Your task to perform on an android device: open sync settings in chrome Image 0: 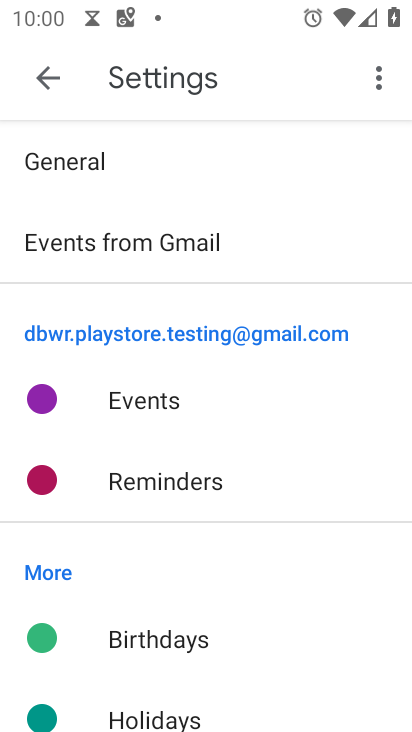
Step 0: click (38, 73)
Your task to perform on an android device: open sync settings in chrome Image 1: 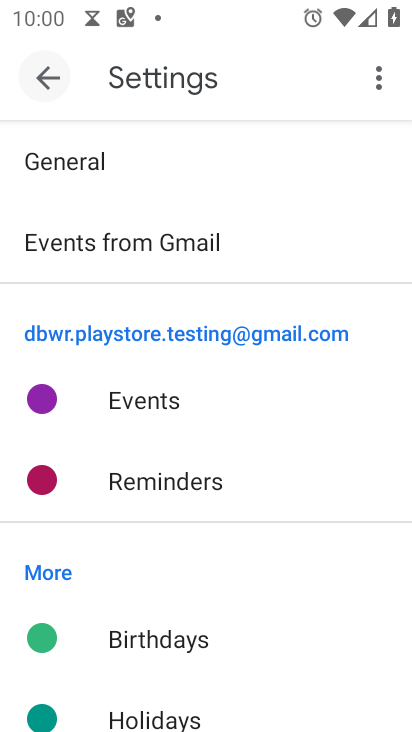
Step 1: click (39, 73)
Your task to perform on an android device: open sync settings in chrome Image 2: 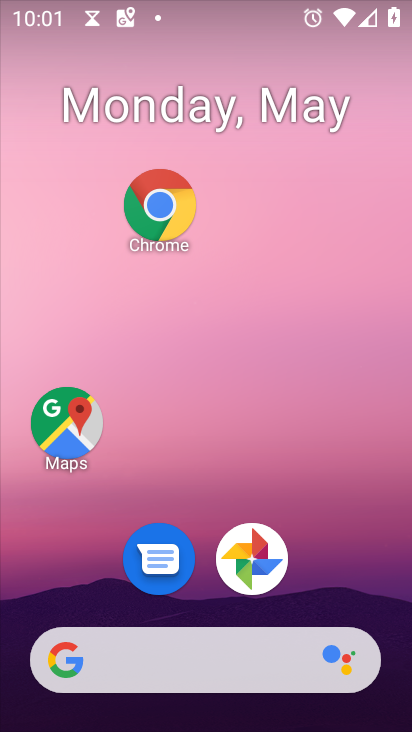
Step 2: drag from (233, 685) to (213, 94)
Your task to perform on an android device: open sync settings in chrome Image 3: 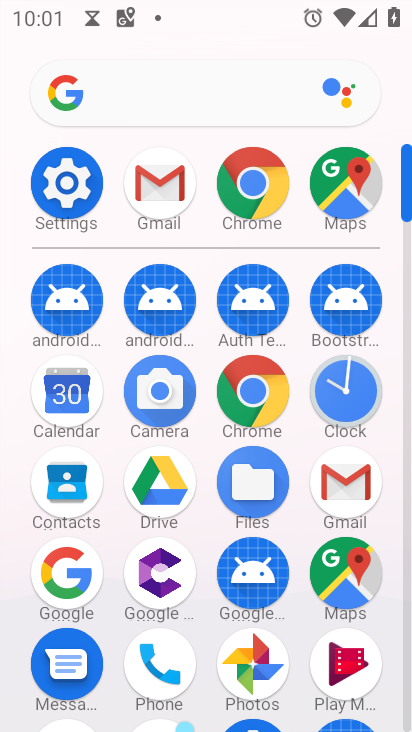
Step 3: click (241, 184)
Your task to perform on an android device: open sync settings in chrome Image 4: 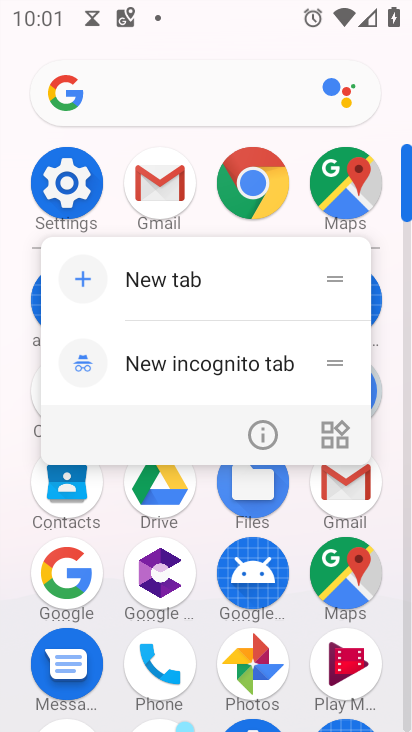
Step 4: click (241, 184)
Your task to perform on an android device: open sync settings in chrome Image 5: 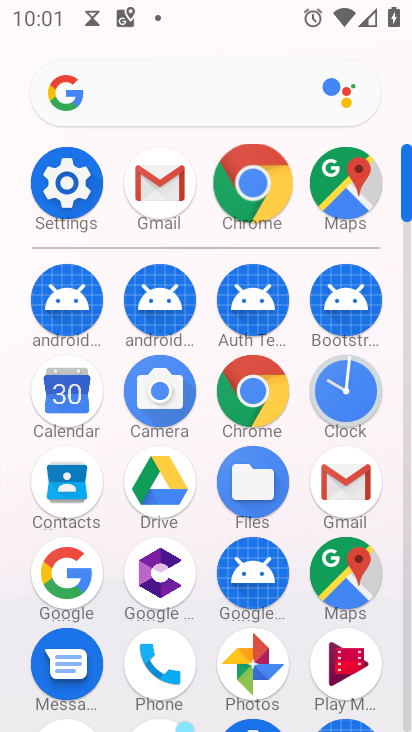
Step 5: click (243, 184)
Your task to perform on an android device: open sync settings in chrome Image 6: 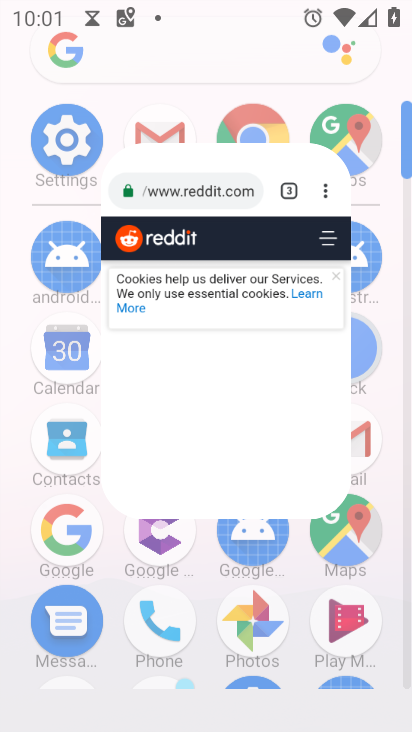
Step 6: click (243, 184)
Your task to perform on an android device: open sync settings in chrome Image 7: 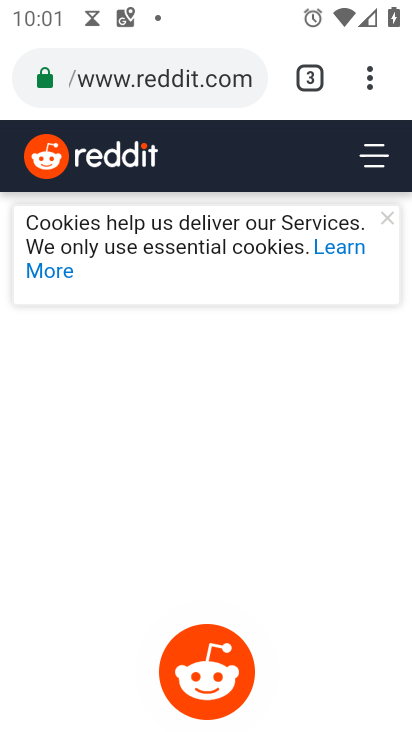
Step 7: click (374, 73)
Your task to perform on an android device: open sync settings in chrome Image 8: 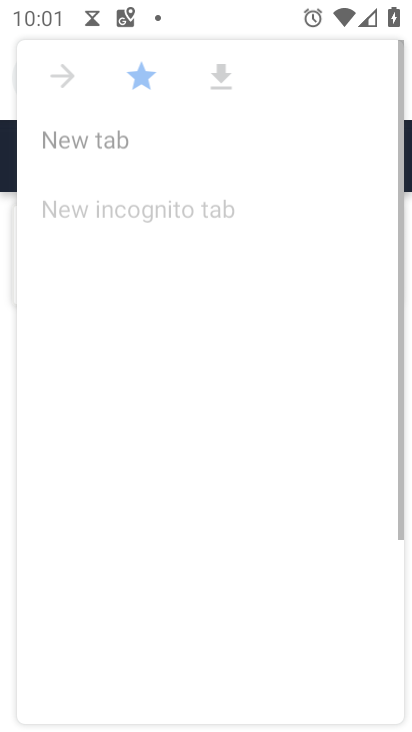
Step 8: click (368, 75)
Your task to perform on an android device: open sync settings in chrome Image 9: 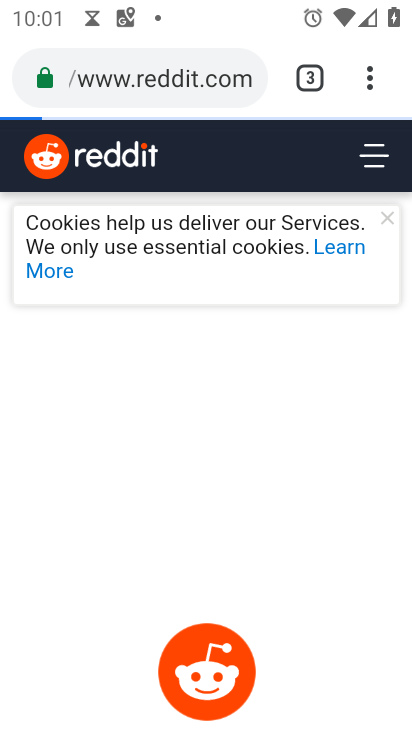
Step 9: click (368, 75)
Your task to perform on an android device: open sync settings in chrome Image 10: 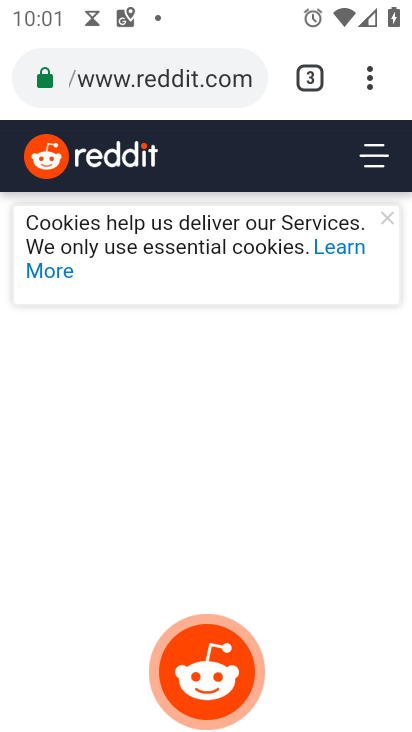
Step 10: drag from (110, 211) to (12, 489)
Your task to perform on an android device: open sync settings in chrome Image 11: 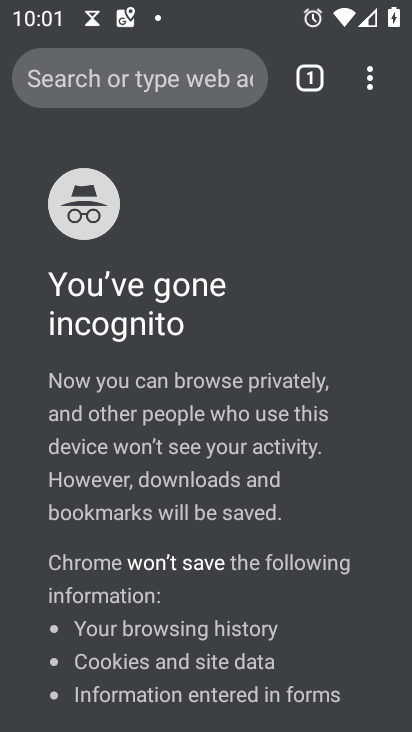
Step 11: drag from (375, 92) to (83, 575)
Your task to perform on an android device: open sync settings in chrome Image 12: 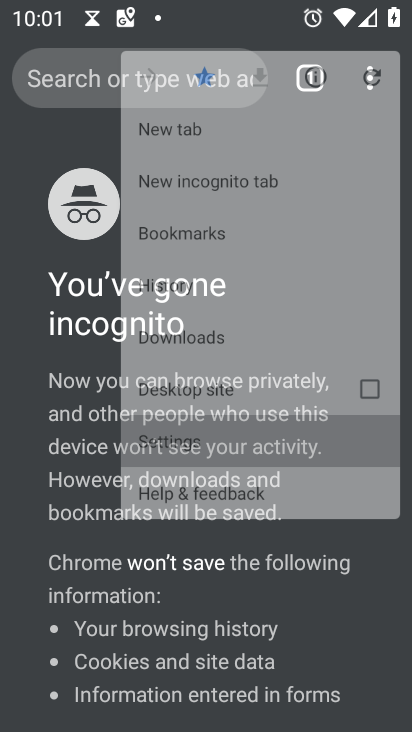
Step 12: click (83, 575)
Your task to perform on an android device: open sync settings in chrome Image 13: 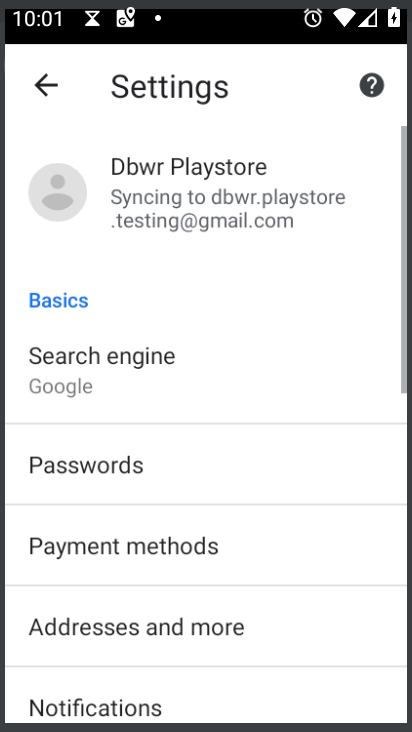
Step 13: click (82, 576)
Your task to perform on an android device: open sync settings in chrome Image 14: 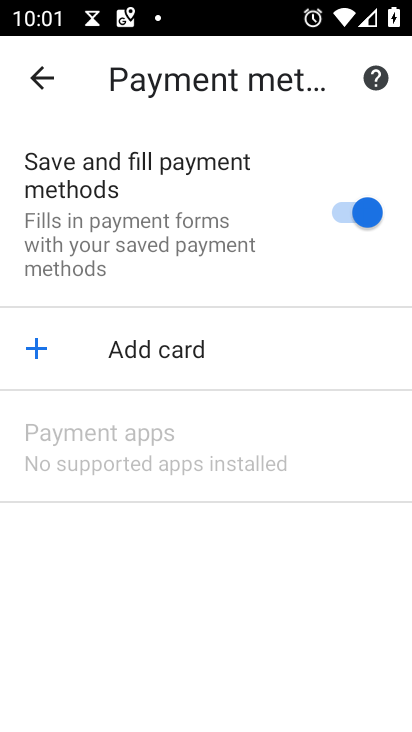
Step 14: click (31, 78)
Your task to perform on an android device: open sync settings in chrome Image 15: 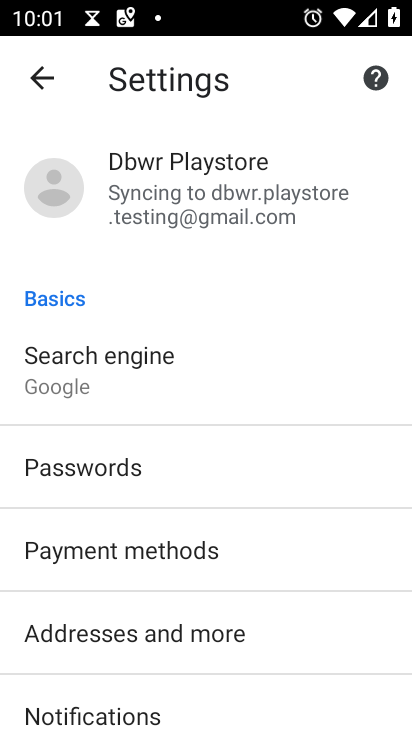
Step 15: click (37, 81)
Your task to perform on an android device: open sync settings in chrome Image 16: 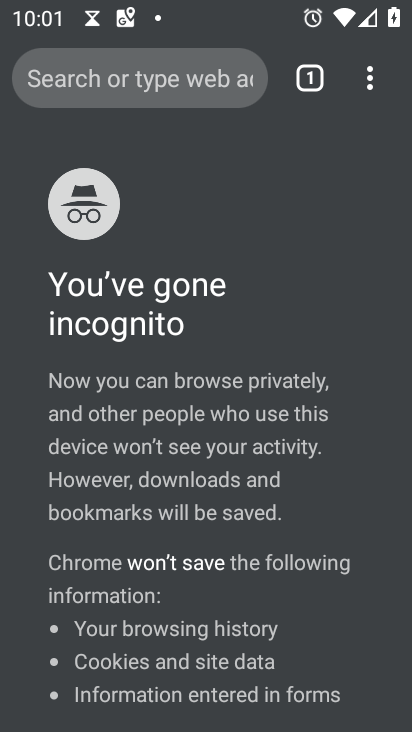
Step 16: drag from (374, 85) to (98, 579)
Your task to perform on an android device: open sync settings in chrome Image 17: 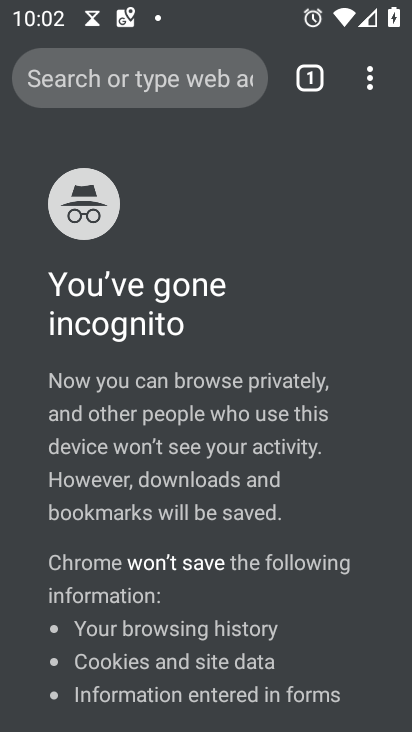
Step 17: click (130, 590)
Your task to perform on an android device: open sync settings in chrome Image 18: 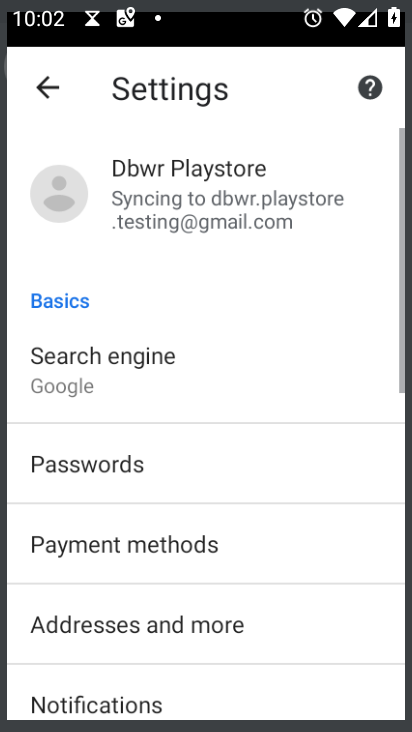
Step 18: click (130, 590)
Your task to perform on an android device: open sync settings in chrome Image 19: 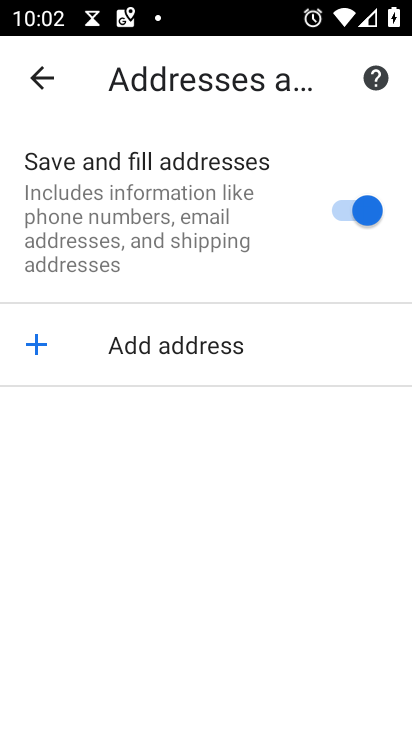
Step 19: click (32, 68)
Your task to perform on an android device: open sync settings in chrome Image 20: 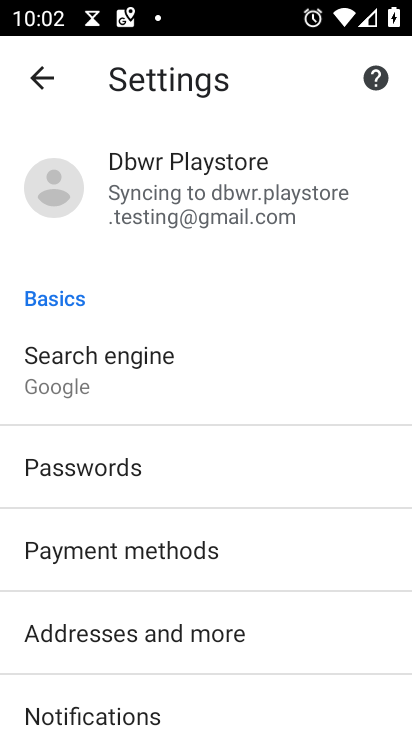
Step 20: drag from (89, 637) to (92, 260)
Your task to perform on an android device: open sync settings in chrome Image 21: 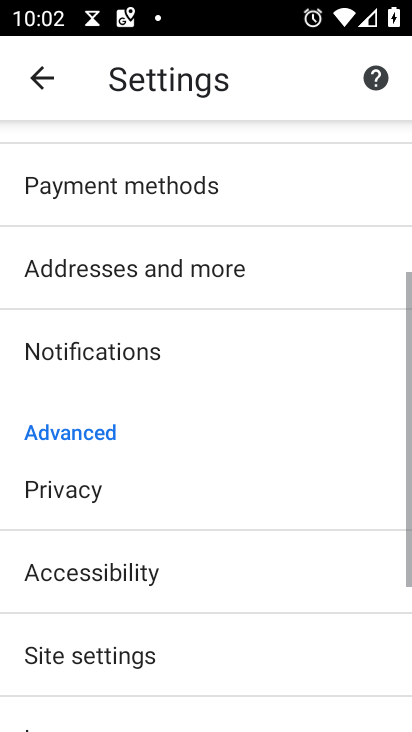
Step 21: drag from (135, 459) to (153, 101)
Your task to perform on an android device: open sync settings in chrome Image 22: 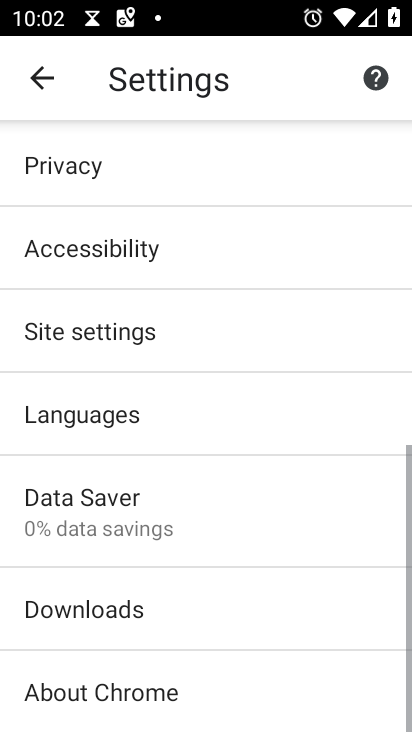
Step 22: drag from (201, 463) to (210, 98)
Your task to perform on an android device: open sync settings in chrome Image 23: 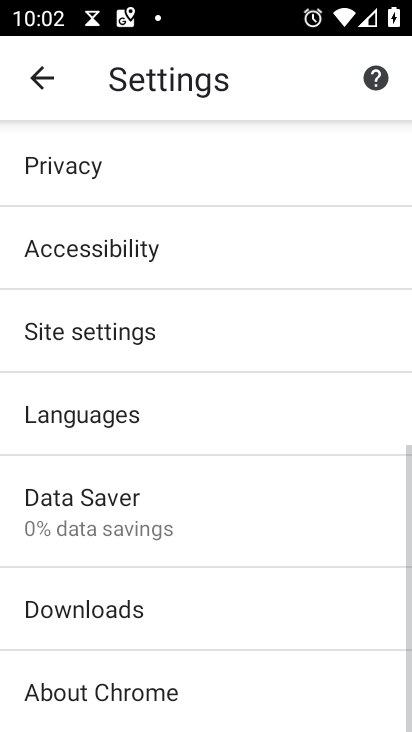
Step 23: click (75, 325)
Your task to perform on an android device: open sync settings in chrome Image 24: 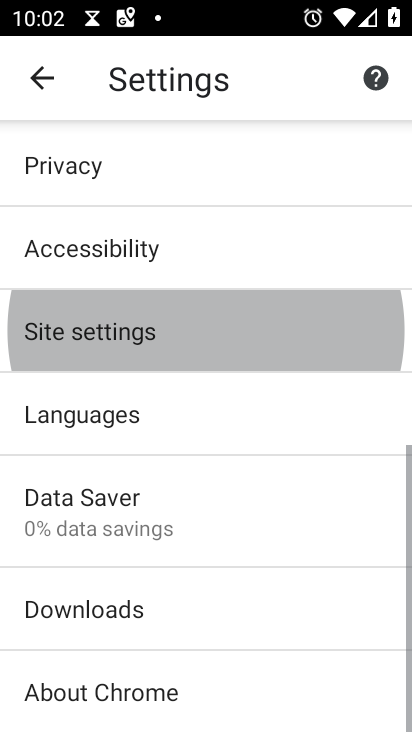
Step 24: click (75, 325)
Your task to perform on an android device: open sync settings in chrome Image 25: 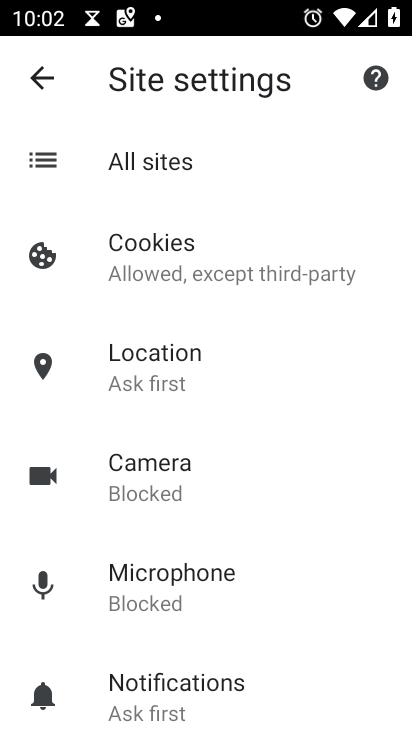
Step 25: drag from (163, 561) to (157, 212)
Your task to perform on an android device: open sync settings in chrome Image 26: 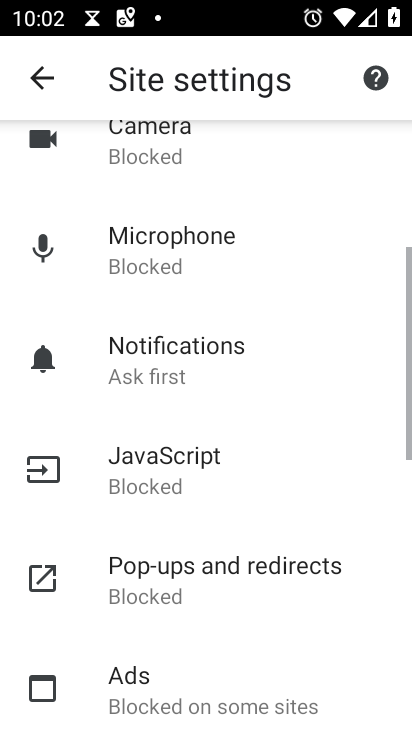
Step 26: drag from (178, 411) to (174, 222)
Your task to perform on an android device: open sync settings in chrome Image 27: 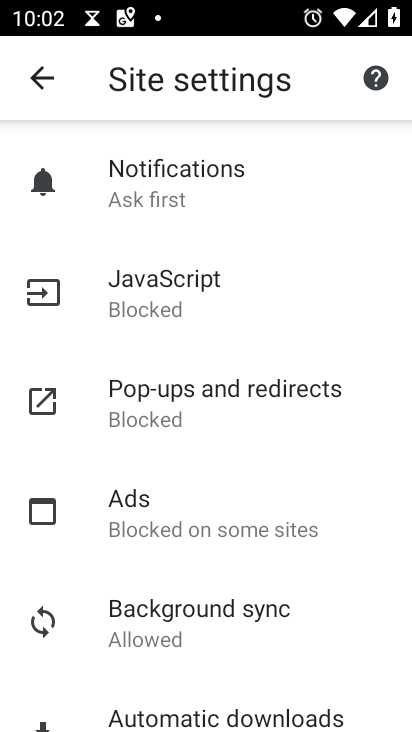
Step 27: click (170, 620)
Your task to perform on an android device: open sync settings in chrome Image 28: 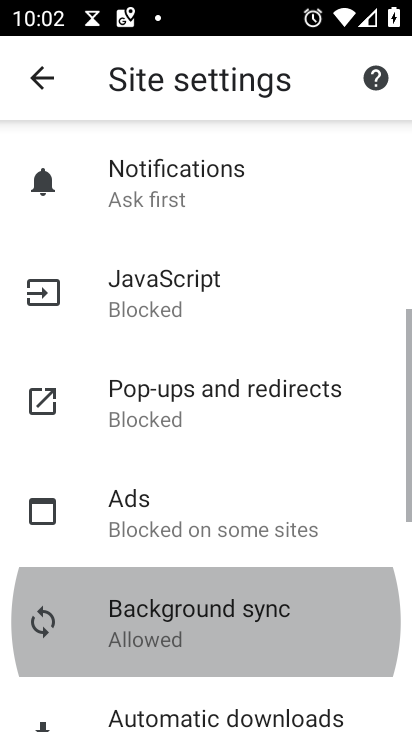
Step 28: click (170, 620)
Your task to perform on an android device: open sync settings in chrome Image 29: 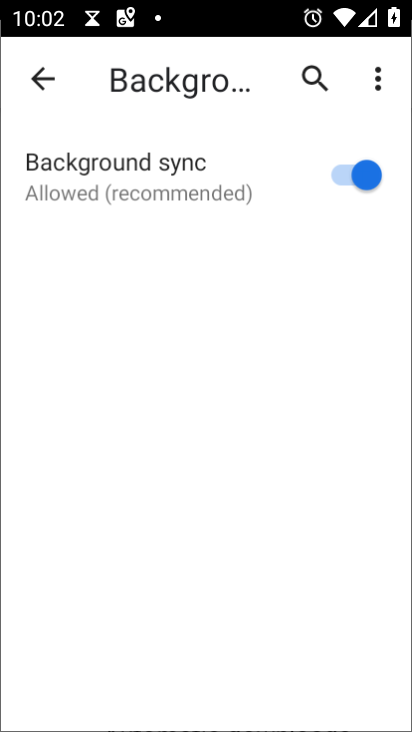
Step 29: click (170, 620)
Your task to perform on an android device: open sync settings in chrome Image 30: 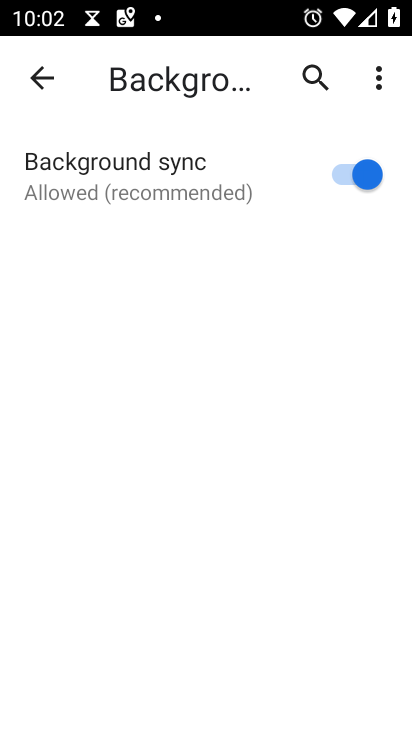
Step 30: task complete